Your task to perform on an android device: Go to location settings Image 0: 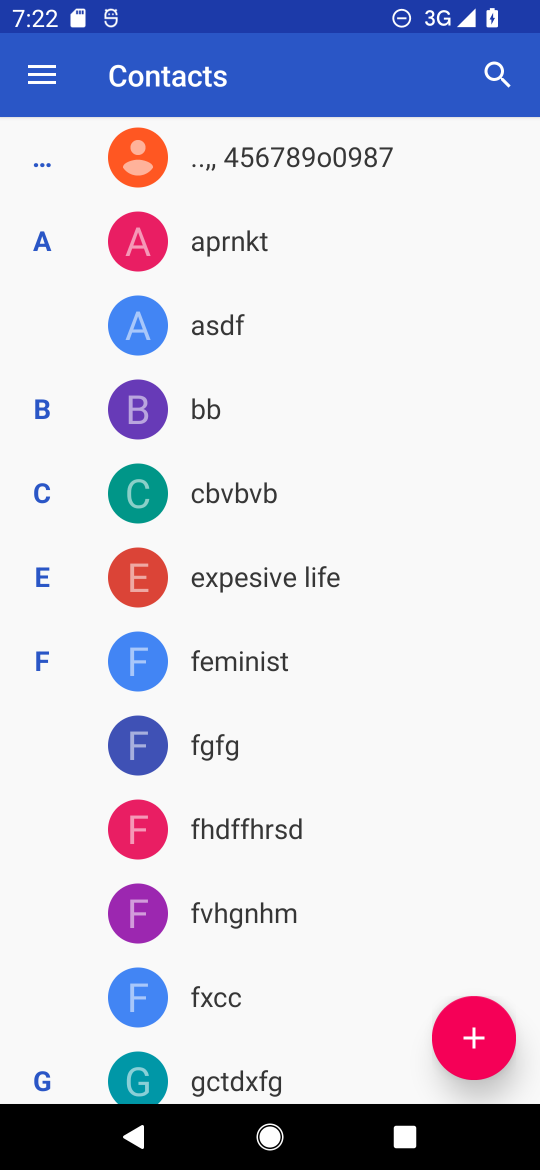
Step 0: press home button
Your task to perform on an android device: Go to location settings Image 1: 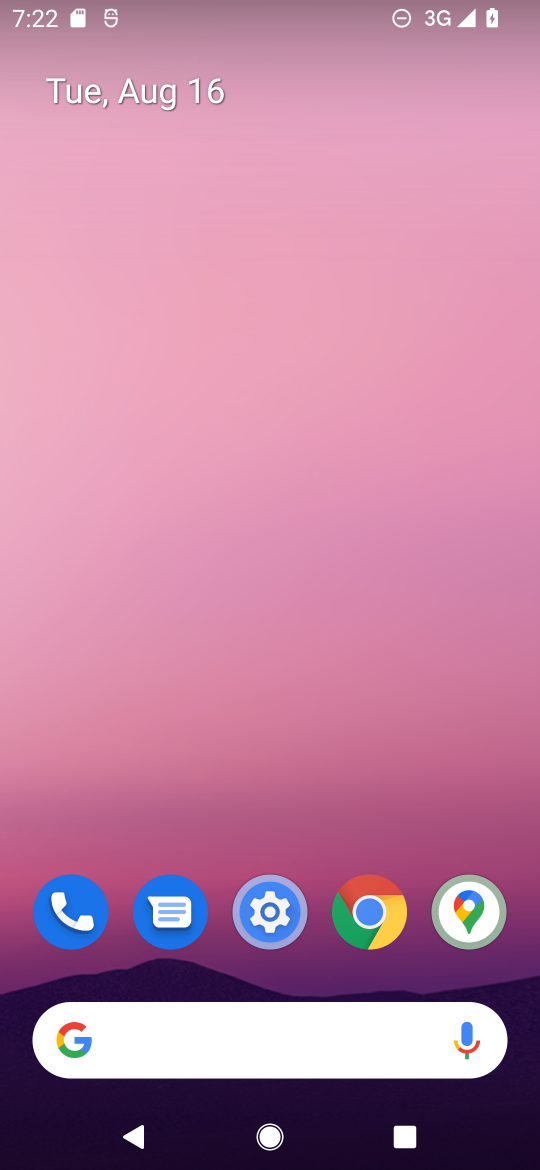
Step 1: click (275, 911)
Your task to perform on an android device: Go to location settings Image 2: 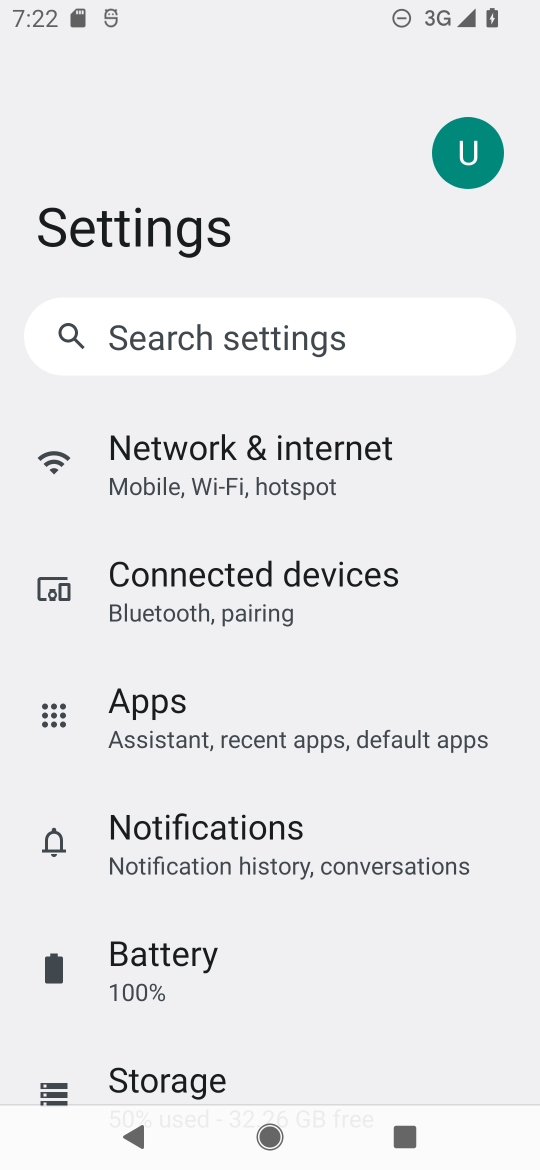
Step 2: drag from (431, 1032) to (393, 576)
Your task to perform on an android device: Go to location settings Image 3: 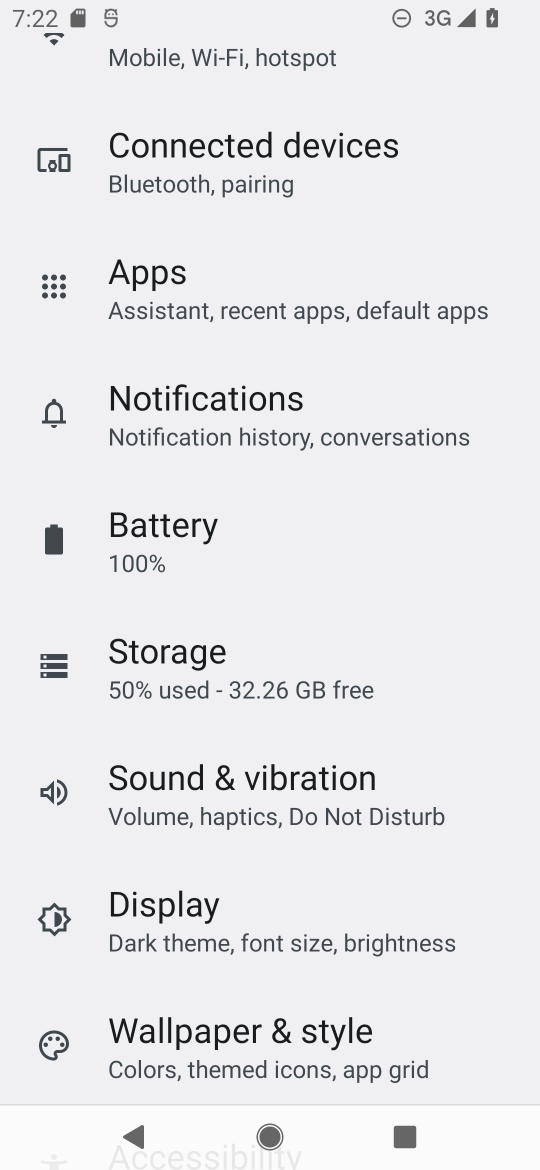
Step 3: drag from (344, 938) to (348, 408)
Your task to perform on an android device: Go to location settings Image 4: 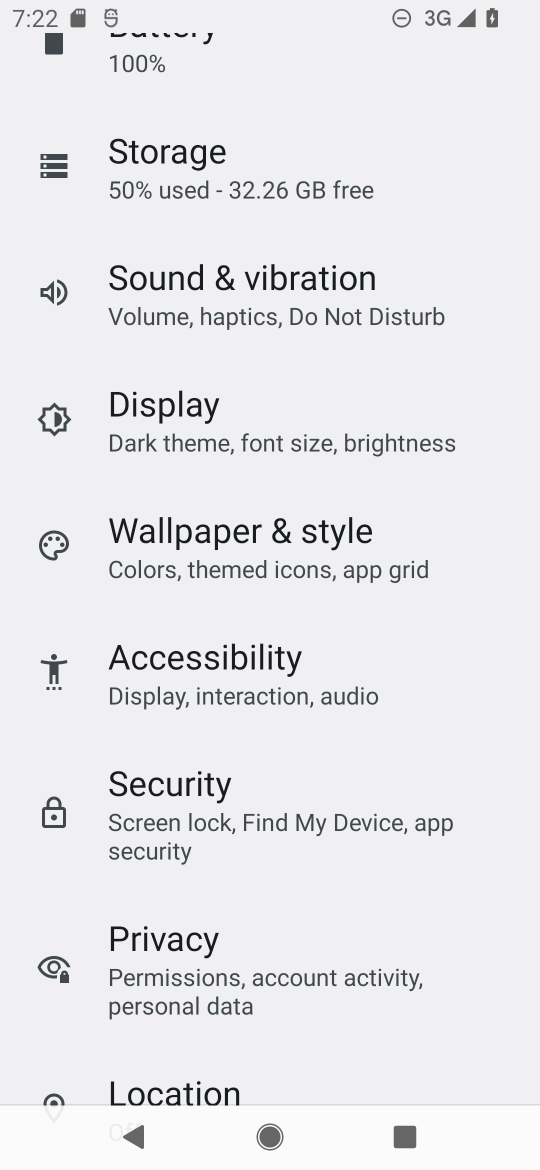
Step 4: drag from (401, 1012) to (381, 483)
Your task to perform on an android device: Go to location settings Image 5: 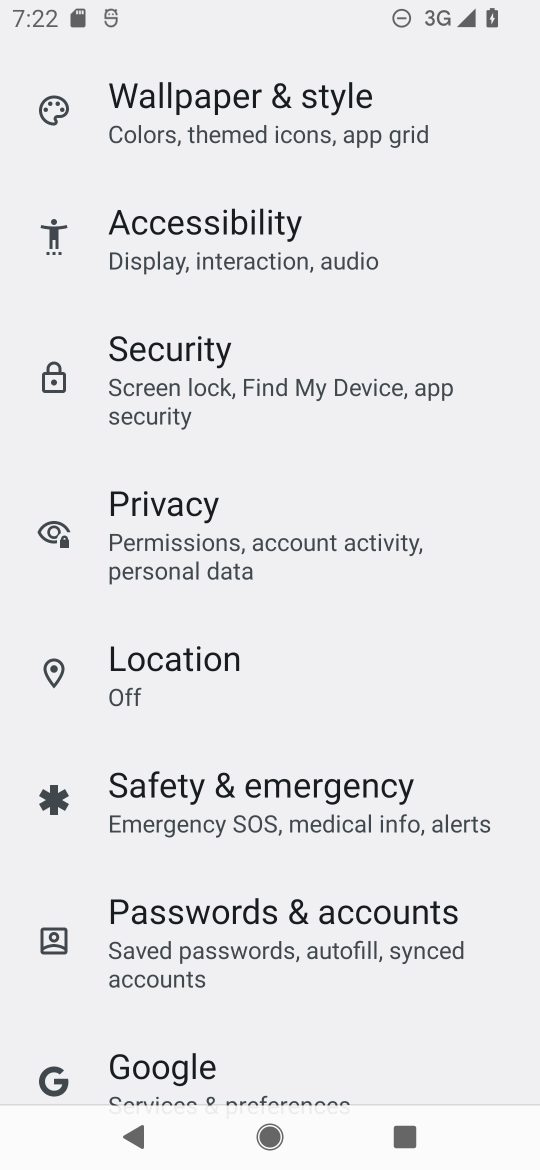
Step 5: click (158, 665)
Your task to perform on an android device: Go to location settings Image 6: 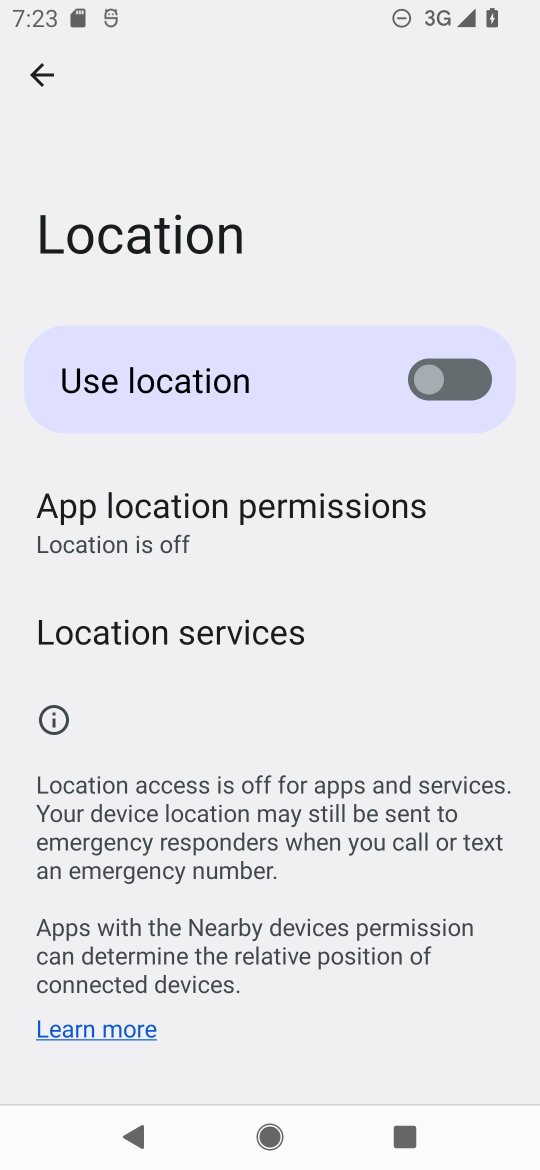
Step 6: task complete